Your task to perform on an android device: Search for seafood restaurants on Google Maps Image 0: 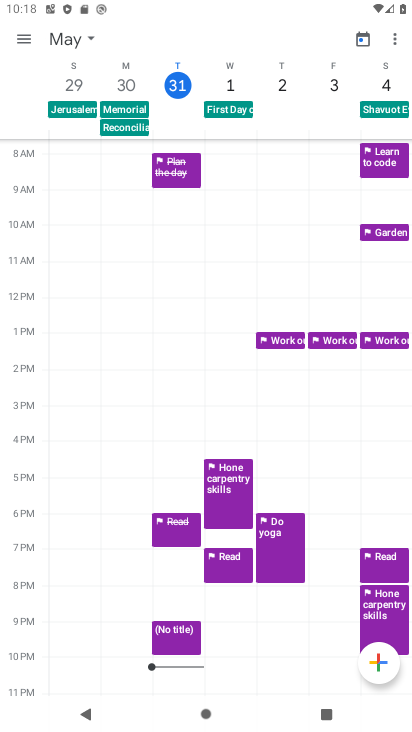
Step 0: press home button
Your task to perform on an android device: Search for seafood restaurants on Google Maps Image 1: 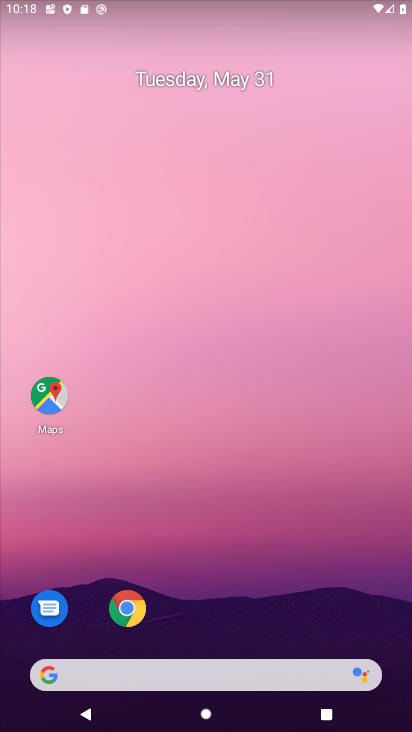
Step 1: drag from (203, 644) to (209, 60)
Your task to perform on an android device: Search for seafood restaurants on Google Maps Image 2: 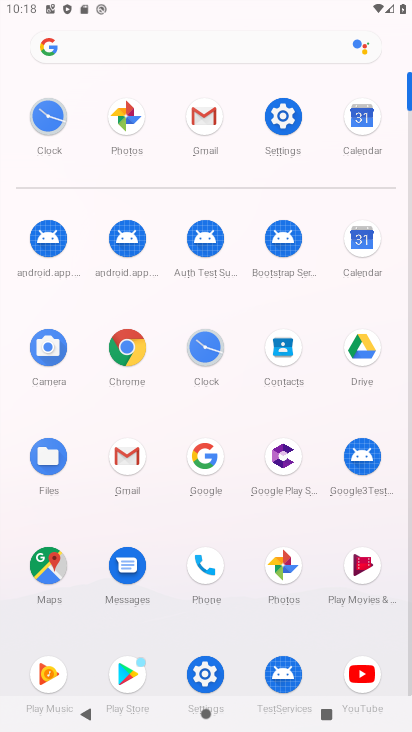
Step 2: click (54, 562)
Your task to perform on an android device: Search for seafood restaurants on Google Maps Image 3: 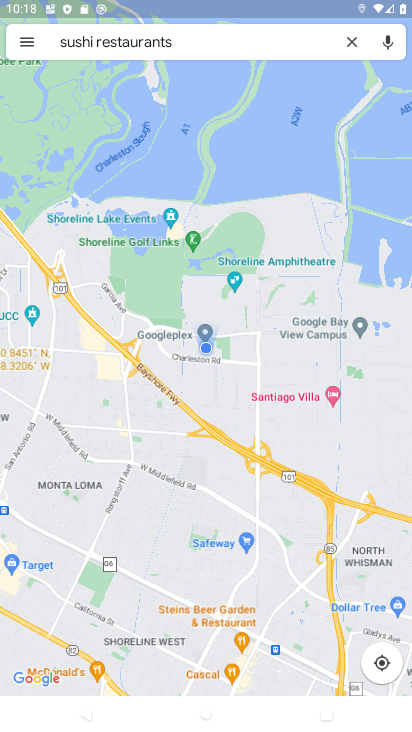
Step 3: click (154, 54)
Your task to perform on an android device: Search for seafood restaurants on Google Maps Image 4: 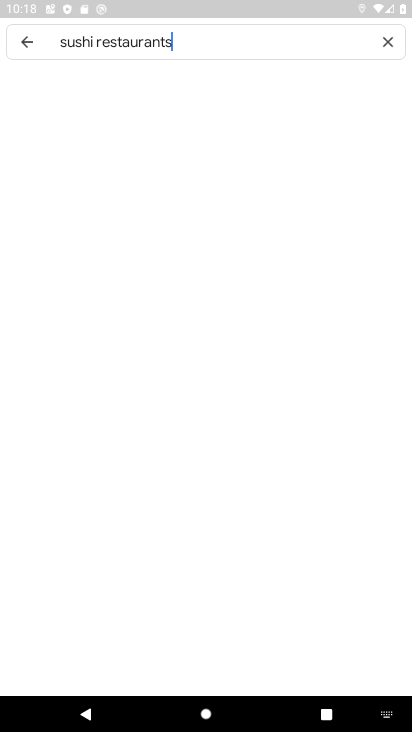
Step 4: click (353, 47)
Your task to perform on an android device: Search for seafood restaurants on Google Maps Image 5: 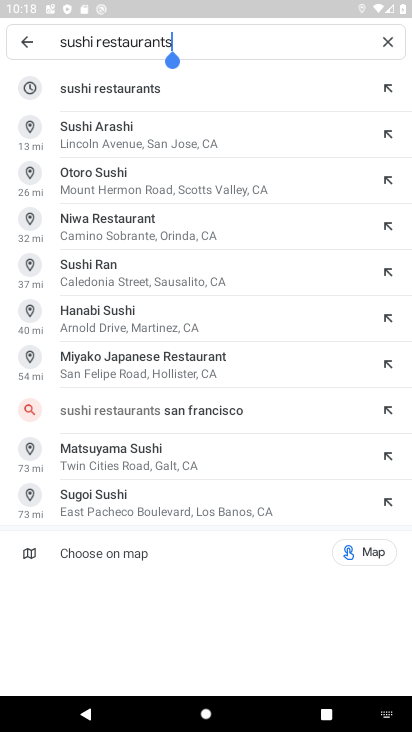
Step 5: click (383, 40)
Your task to perform on an android device: Search for seafood restaurants on Google Maps Image 6: 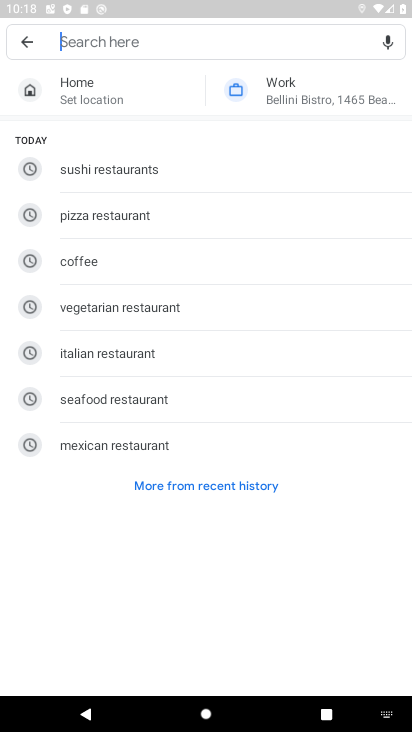
Step 6: click (179, 39)
Your task to perform on an android device: Search for seafood restaurants on Google Maps Image 7: 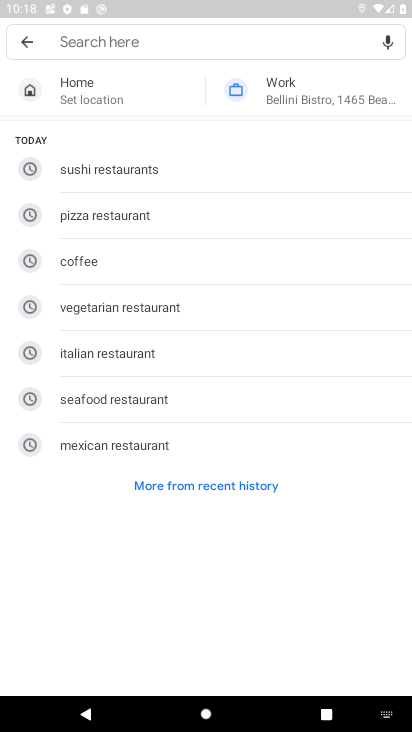
Step 7: click (82, 391)
Your task to perform on an android device: Search for seafood restaurants on Google Maps Image 8: 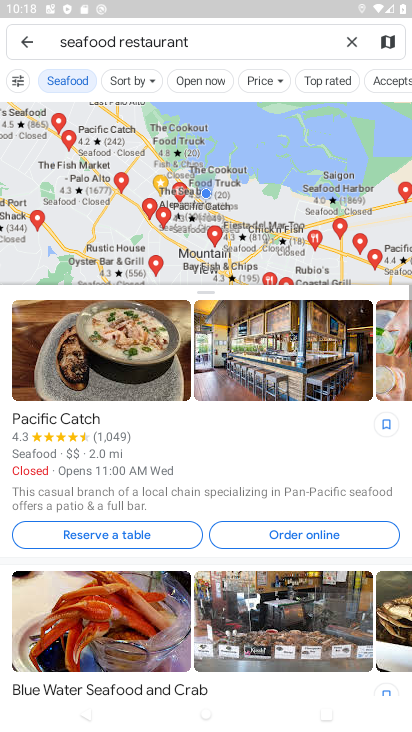
Step 8: task complete